Your task to perform on an android device: Go to accessibility settings Image 0: 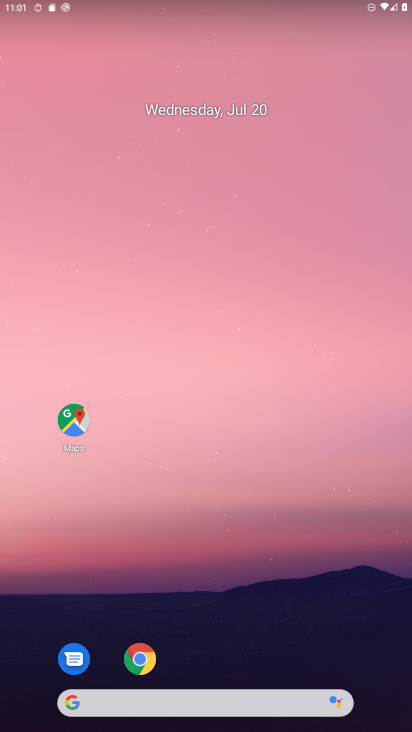
Step 0: drag from (281, 579) to (303, 126)
Your task to perform on an android device: Go to accessibility settings Image 1: 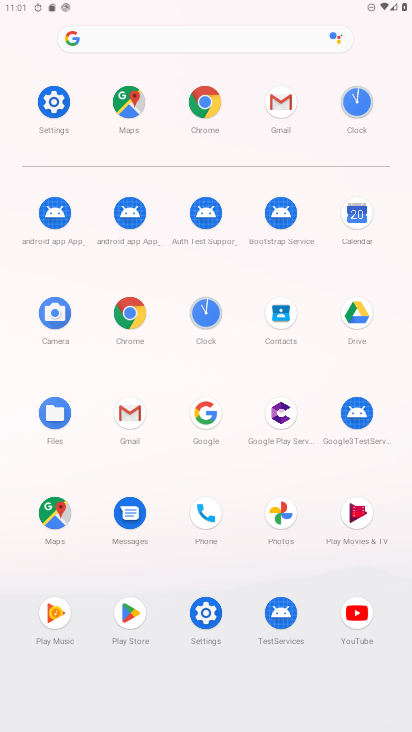
Step 1: click (61, 94)
Your task to perform on an android device: Go to accessibility settings Image 2: 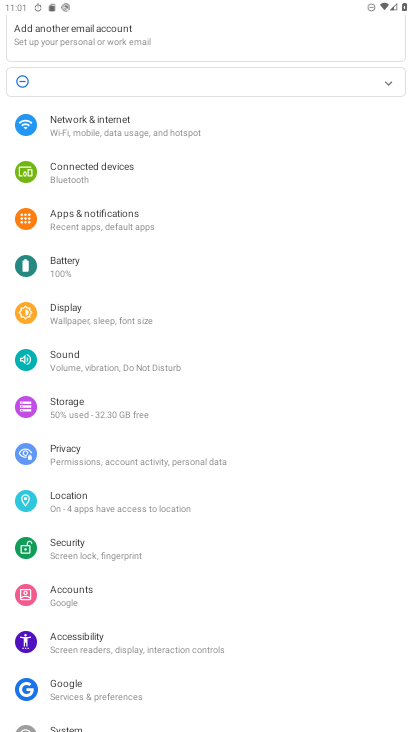
Step 2: click (92, 650)
Your task to perform on an android device: Go to accessibility settings Image 3: 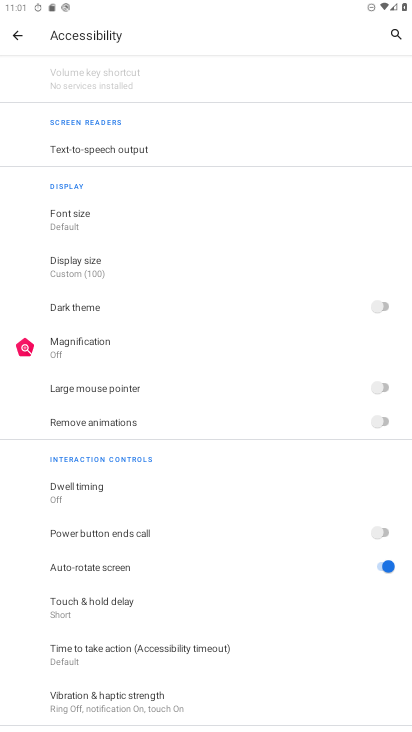
Step 3: task complete